Your task to perform on an android device: Go to sound settings Image 0: 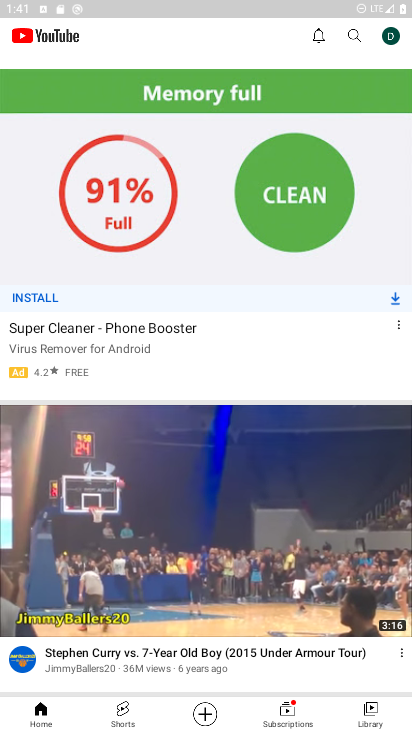
Step 0: press home button
Your task to perform on an android device: Go to sound settings Image 1: 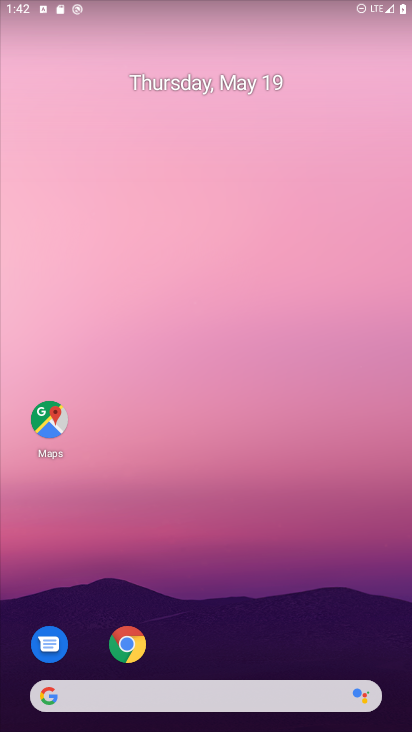
Step 1: drag from (243, 649) to (217, 320)
Your task to perform on an android device: Go to sound settings Image 2: 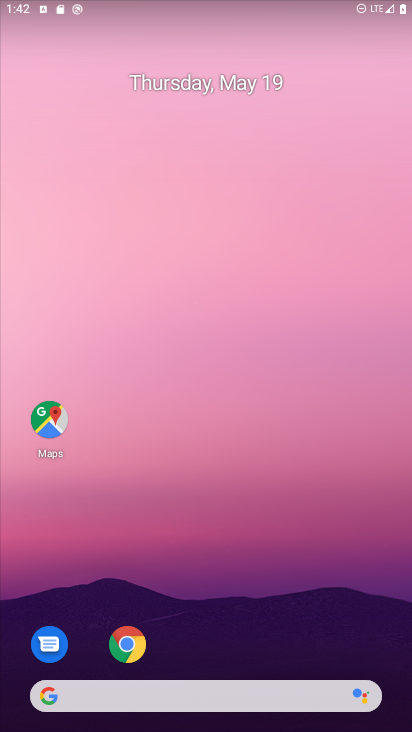
Step 2: drag from (267, 627) to (205, 180)
Your task to perform on an android device: Go to sound settings Image 3: 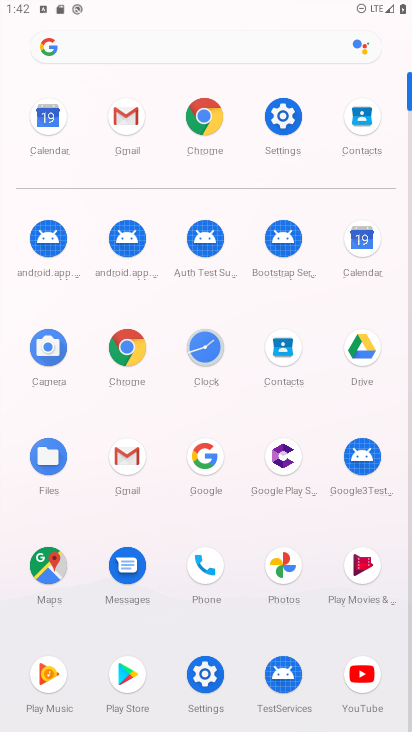
Step 3: click (282, 104)
Your task to perform on an android device: Go to sound settings Image 4: 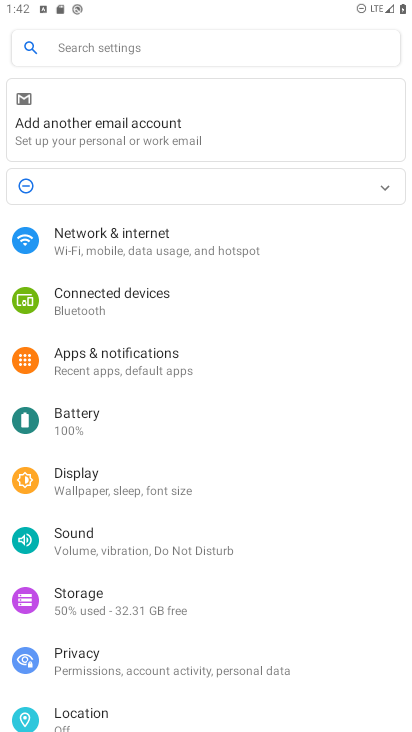
Step 4: click (181, 534)
Your task to perform on an android device: Go to sound settings Image 5: 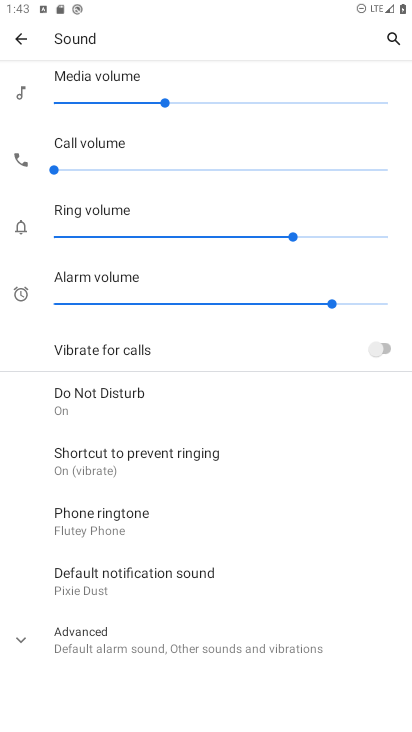
Step 5: task complete